Your task to perform on an android device: turn off notifications in google photos Image 0: 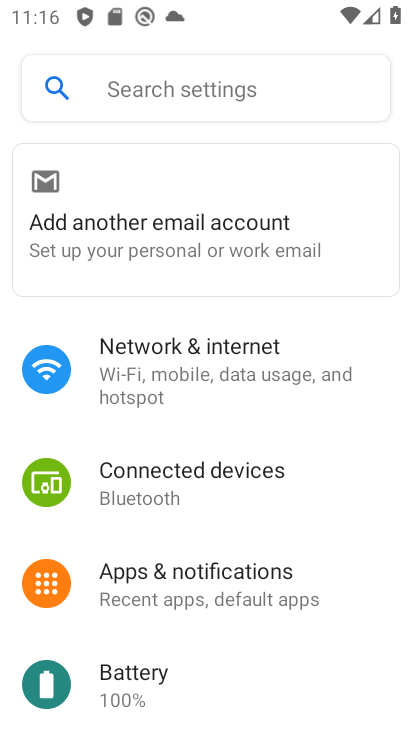
Step 0: press home button
Your task to perform on an android device: turn off notifications in google photos Image 1: 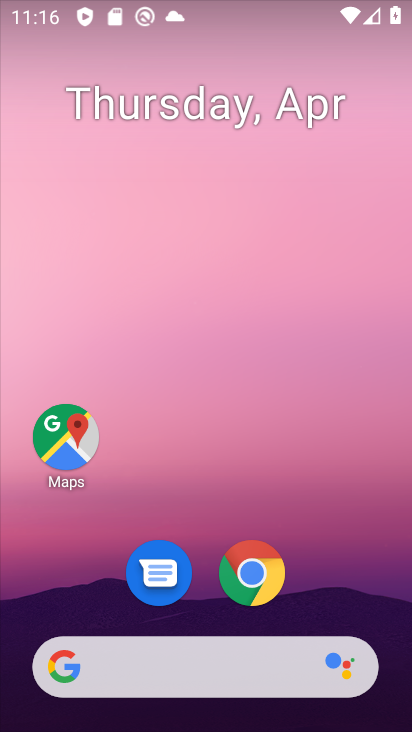
Step 1: drag from (327, 571) to (287, 63)
Your task to perform on an android device: turn off notifications in google photos Image 2: 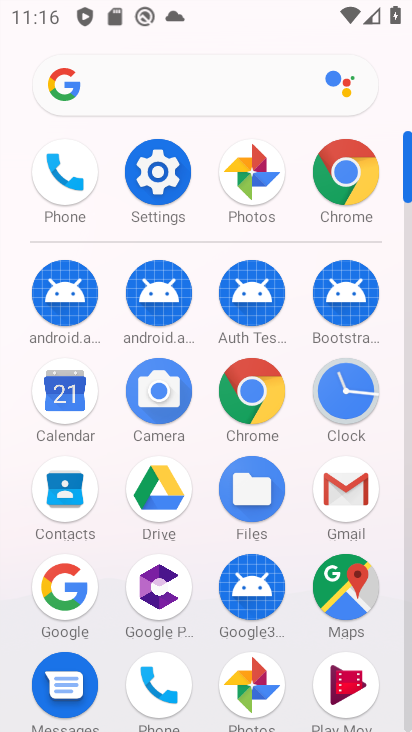
Step 2: click (244, 656)
Your task to perform on an android device: turn off notifications in google photos Image 3: 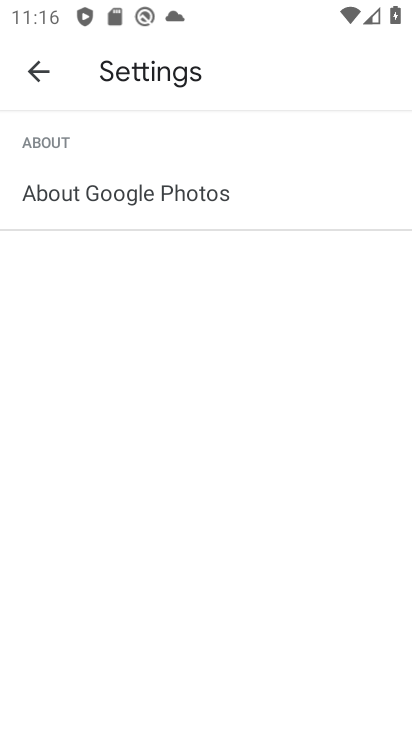
Step 3: click (43, 72)
Your task to perform on an android device: turn off notifications in google photos Image 4: 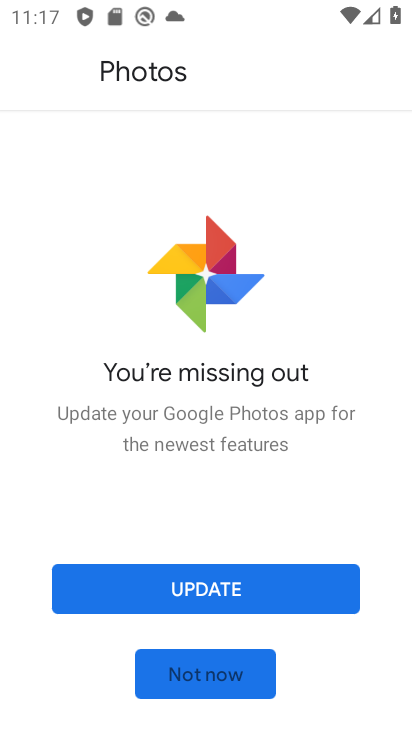
Step 4: click (233, 581)
Your task to perform on an android device: turn off notifications in google photos Image 5: 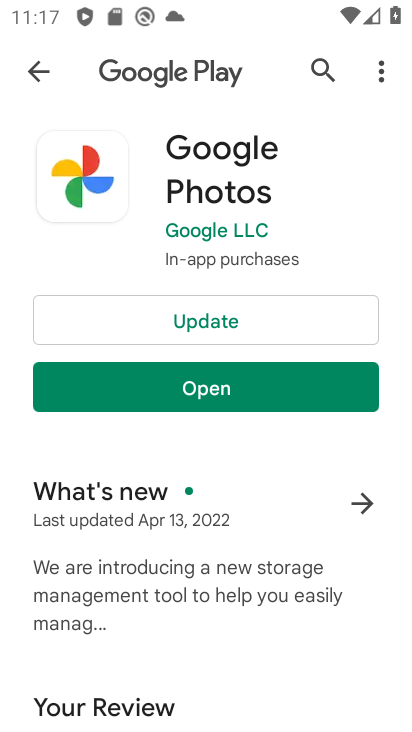
Step 5: click (237, 325)
Your task to perform on an android device: turn off notifications in google photos Image 6: 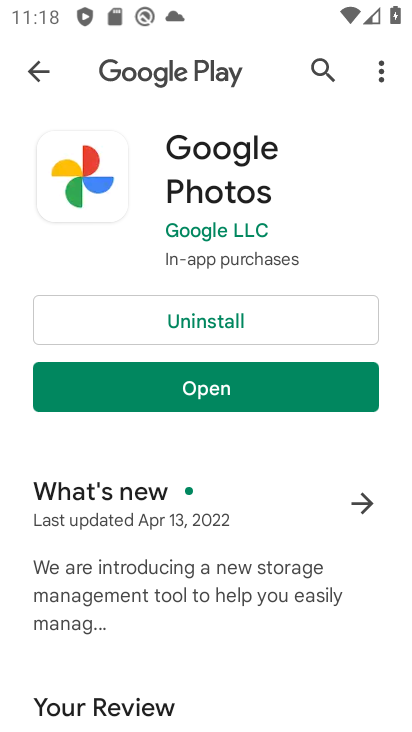
Step 6: click (247, 394)
Your task to perform on an android device: turn off notifications in google photos Image 7: 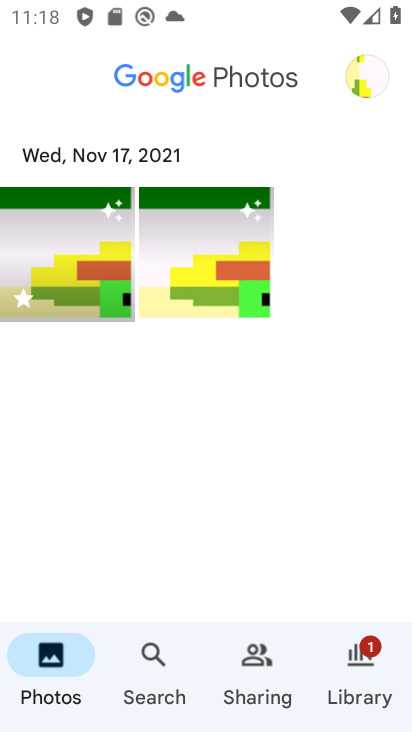
Step 7: click (377, 69)
Your task to perform on an android device: turn off notifications in google photos Image 8: 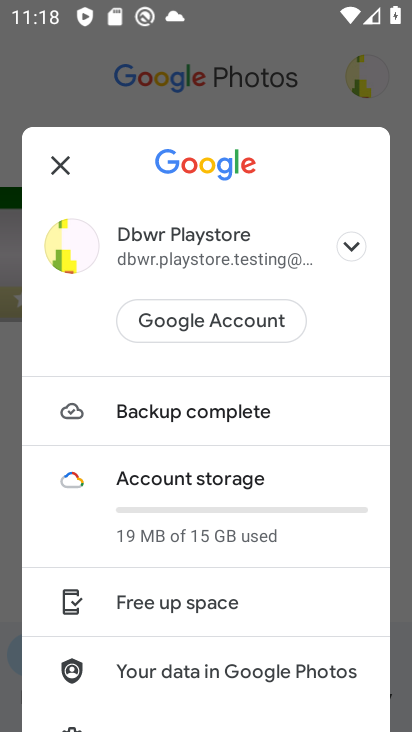
Step 8: drag from (192, 646) to (186, 305)
Your task to perform on an android device: turn off notifications in google photos Image 9: 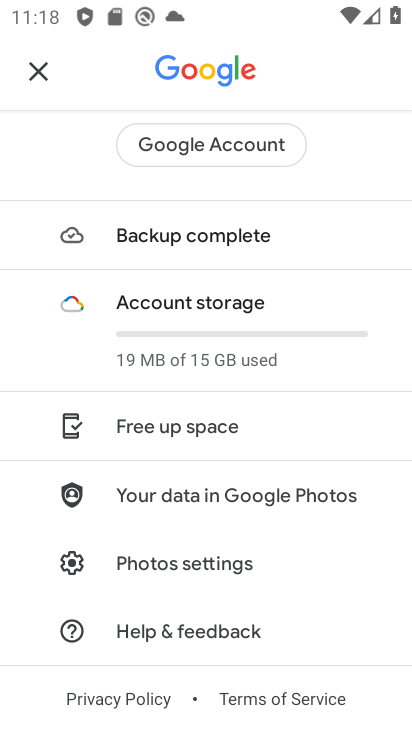
Step 9: click (206, 561)
Your task to perform on an android device: turn off notifications in google photos Image 10: 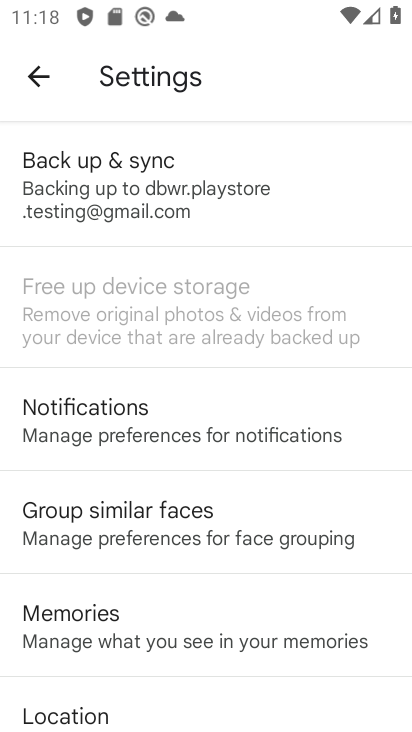
Step 10: click (254, 434)
Your task to perform on an android device: turn off notifications in google photos Image 11: 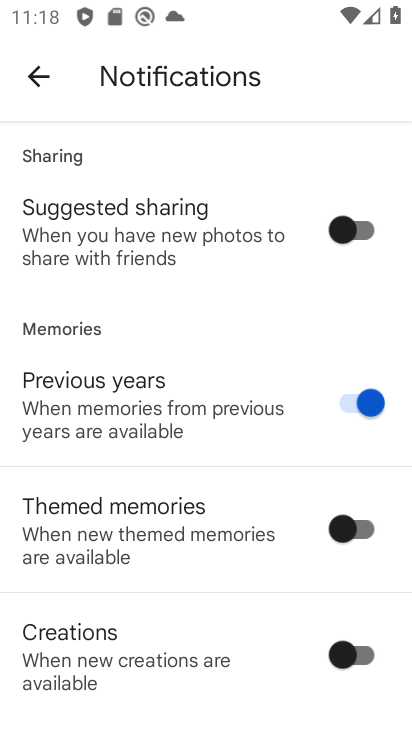
Step 11: drag from (231, 589) to (230, 226)
Your task to perform on an android device: turn off notifications in google photos Image 12: 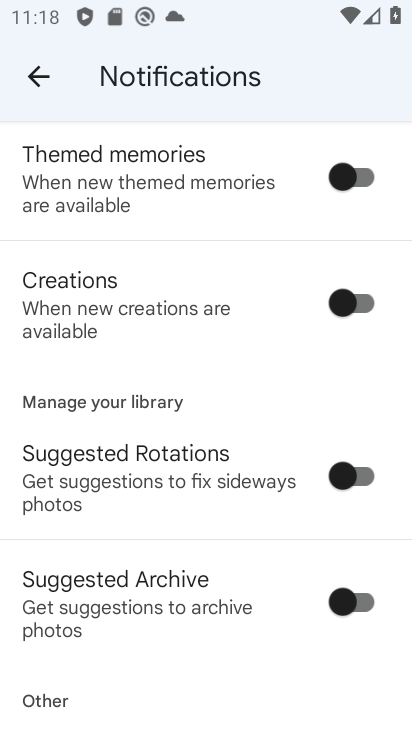
Step 12: drag from (230, 653) to (244, 227)
Your task to perform on an android device: turn off notifications in google photos Image 13: 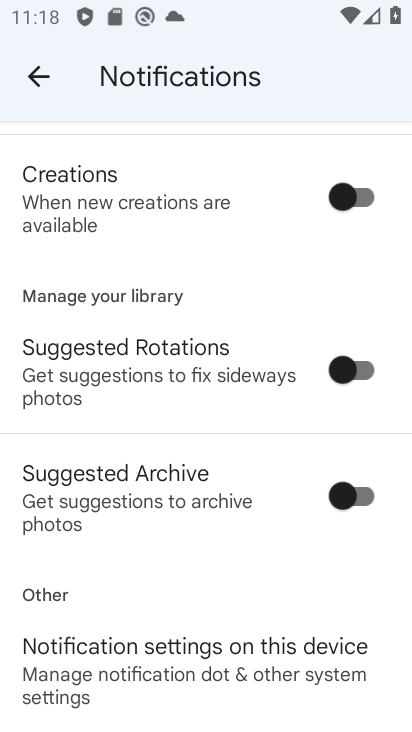
Step 13: click (243, 671)
Your task to perform on an android device: turn off notifications in google photos Image 14: 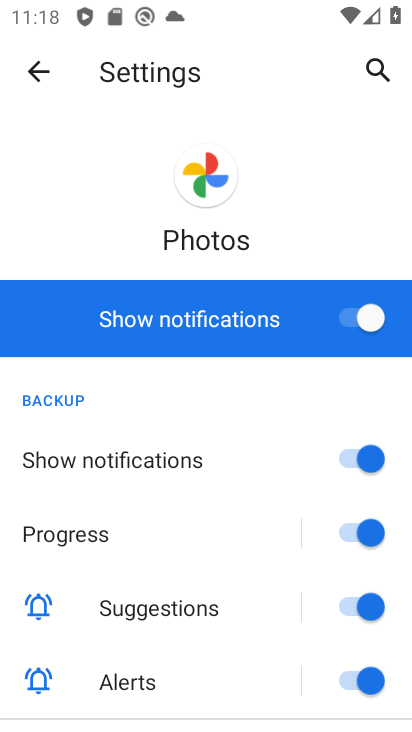
Step 14: click (349, 315)
Your task to perform on an android device: turn off notifications in google photos Image 15: 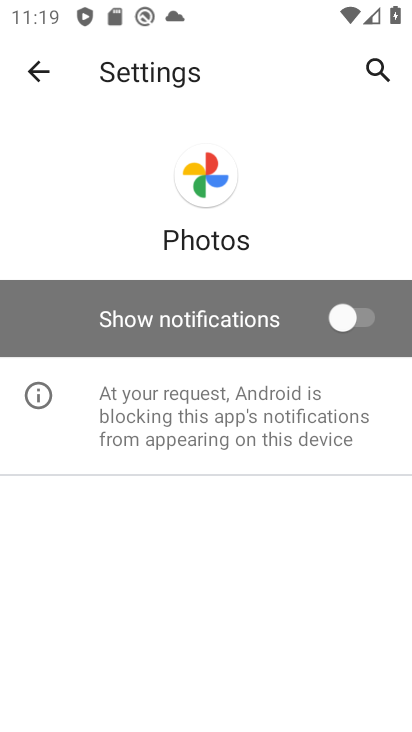
Step 15: task complete